Your task to perform on an android device: Go to Yahoo.com Image 0: 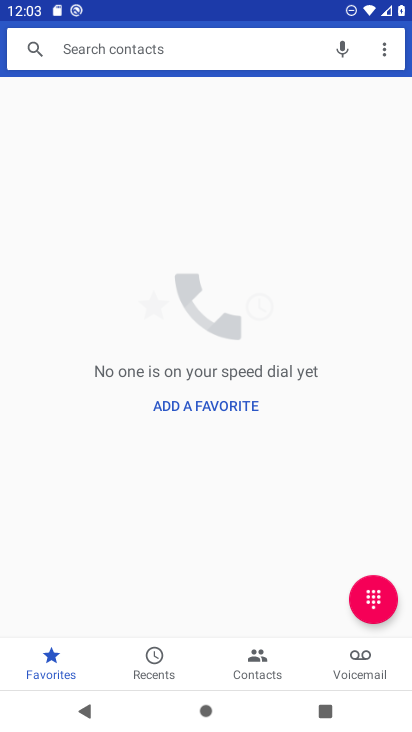
Step 0: press home button
Your task to perform on an android device: Go to Yahoo.com Image 1: 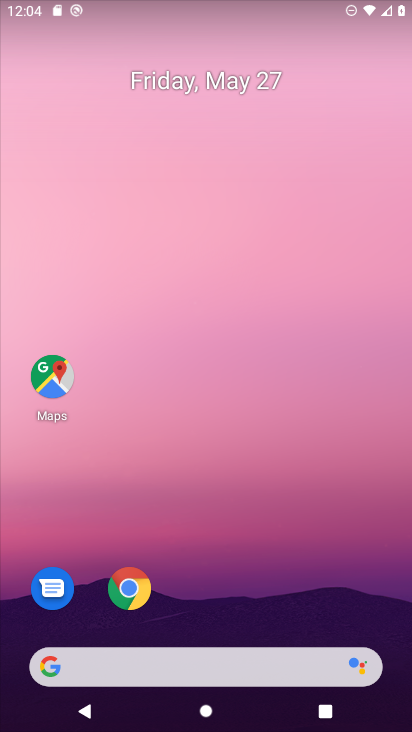
Step 1: click (132, 588)
Your task to perform on an android device: Go to Yahoo.com Image 2: 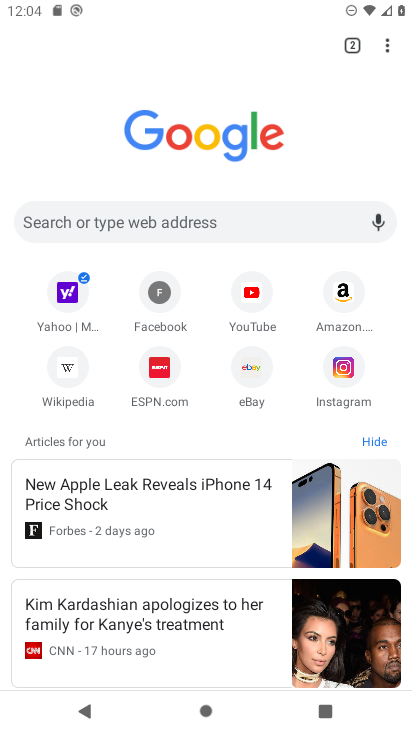
Step 2: click (117, 217)
Your task to perform on an android device: Go to Yahoo.com Image 3: 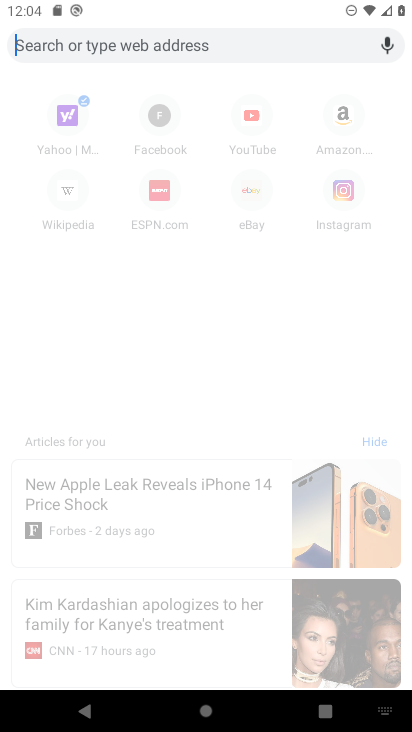
Step 3: type "yahoo.com"
Your task to perform on an android device: Go to Yahoo.com Image 4: 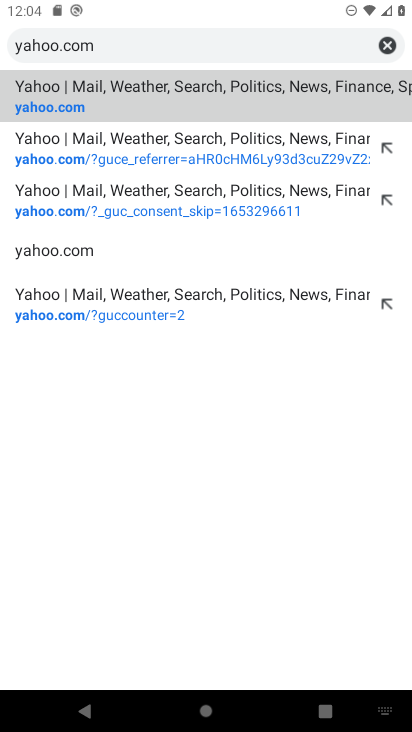
Step 4: click (78, 86)
Your task to perform on an android device: Go to Yahoo.com Image 5: 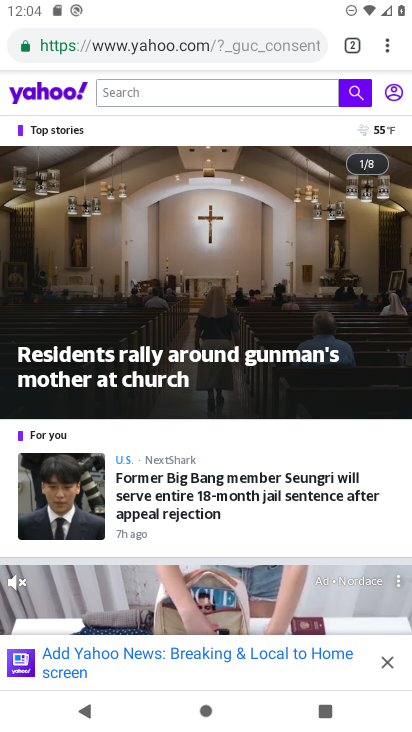
Step 5: task complete